Your task to perform on an android device: Check the news Image 0: 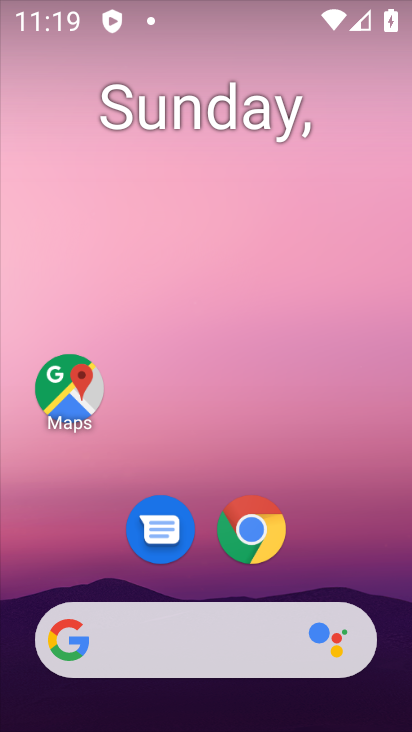
Step 0: drag from (332, 565) to (281, 164)
Your task to perform on an android device: Check the news Image 1: 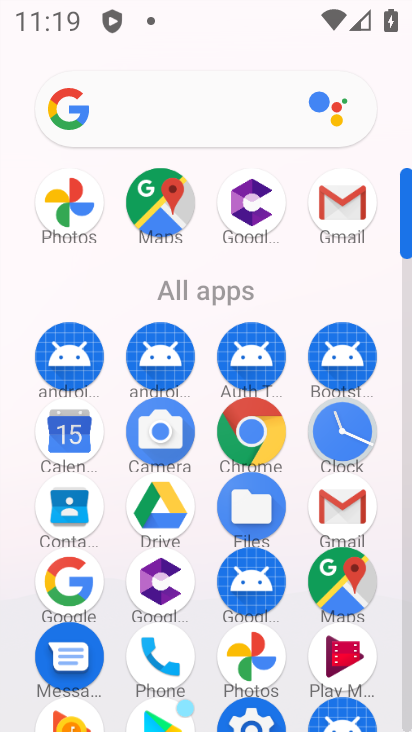
Step 1: click (65, 577)
Your task to perform on an android device: Check the news Image 2: 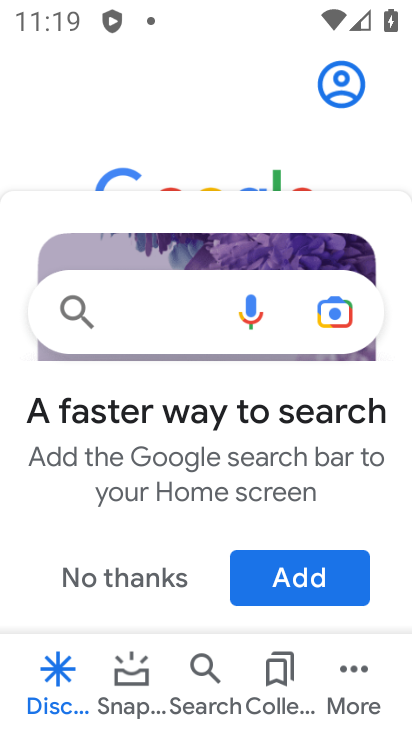
Step 2: click (156, 315)
Your task to perform on an android device: Check the news Image 3: 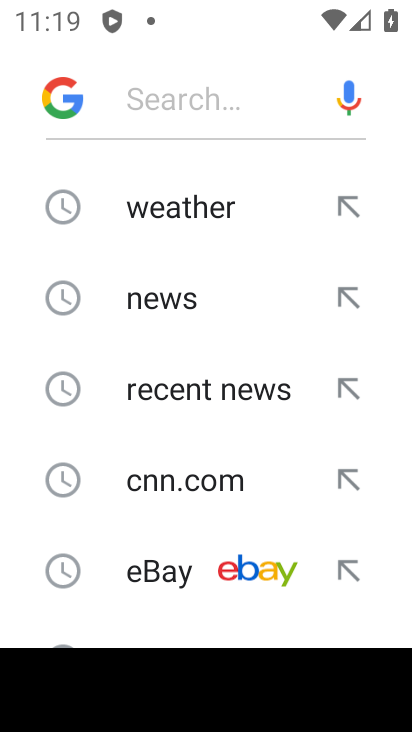
Step 3: click (178, 287)
Your task to perform on an android device: Check the news Image 4: 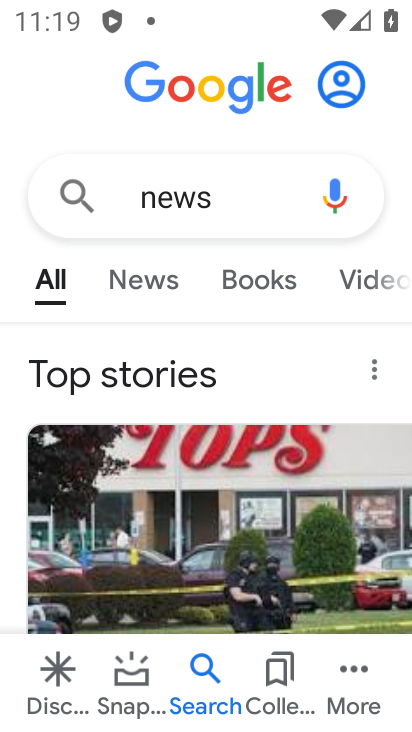
Step 4: drag from (248, 564) to (291, 355)
Your task to perform on an android device: Check the news Image 5: 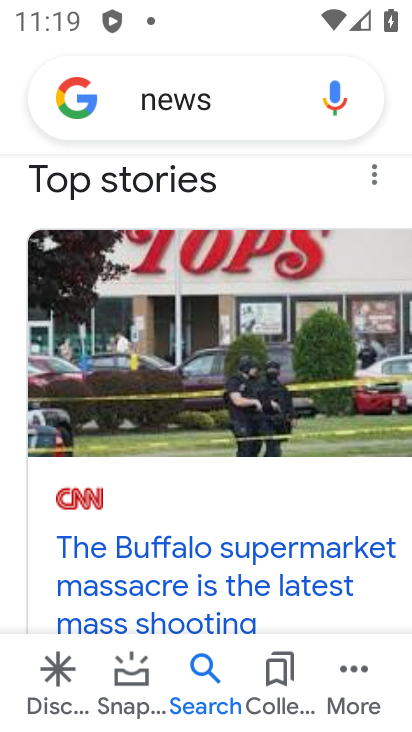
Step 5: drag from (237, 531) to (324, 356)
Your task to perform on an android device: Check the news Image 6: 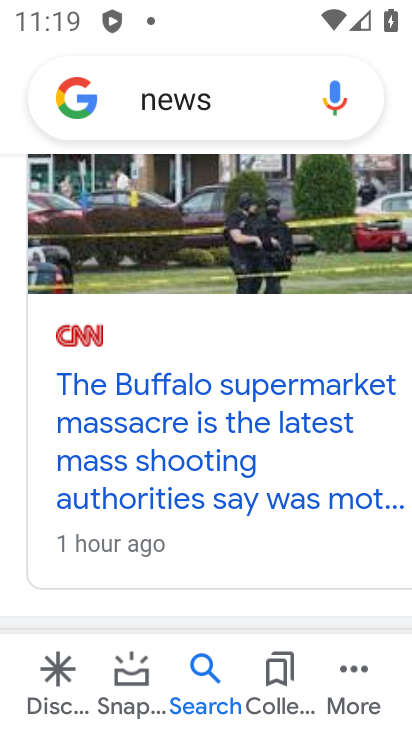
Step 6: click (253, 387)
Your task to perform on an android device: Check the news Image 7: 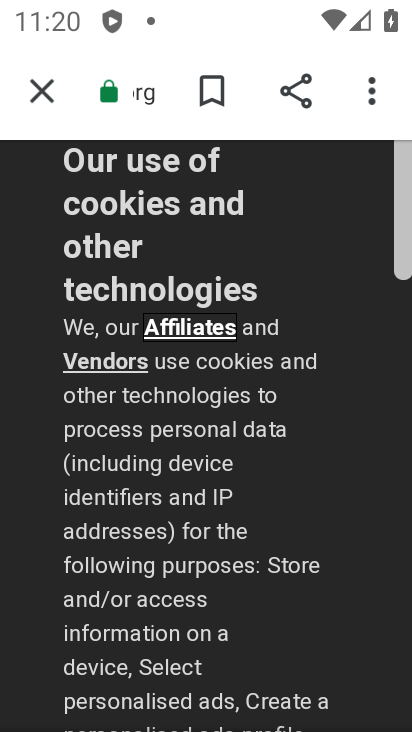
Step 7: task complete